Your task to perform on an android device: Do I have any events today? Image 0: 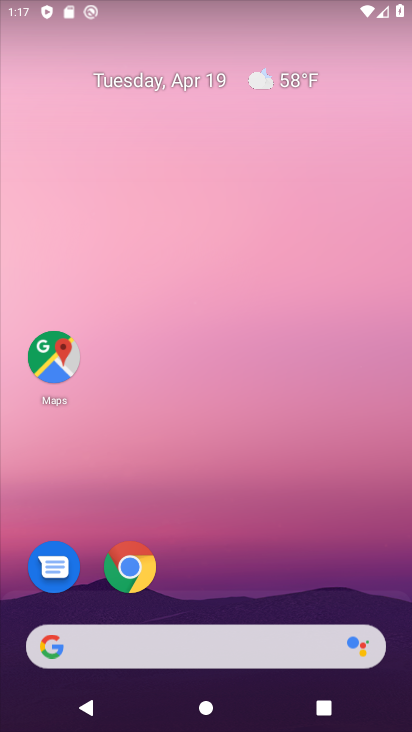
Step 0: drag from (270, 596) to (290, 59)
Your task to perform on an android device: Do I have any events today? Image 1: 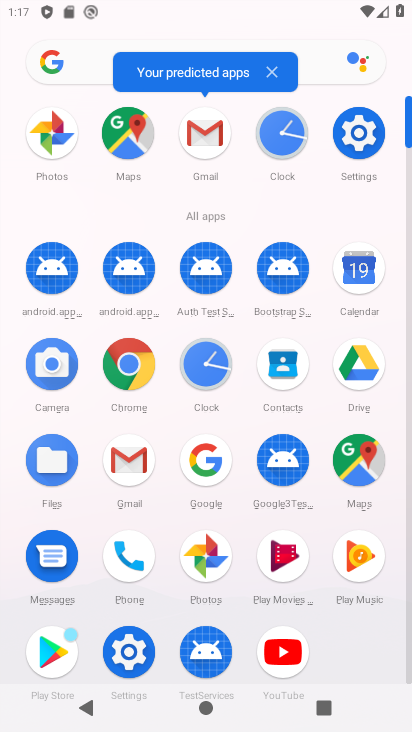
Step 1: click (357, 290)
Your task to perform on an android device: Do I have any events today? Image 2: 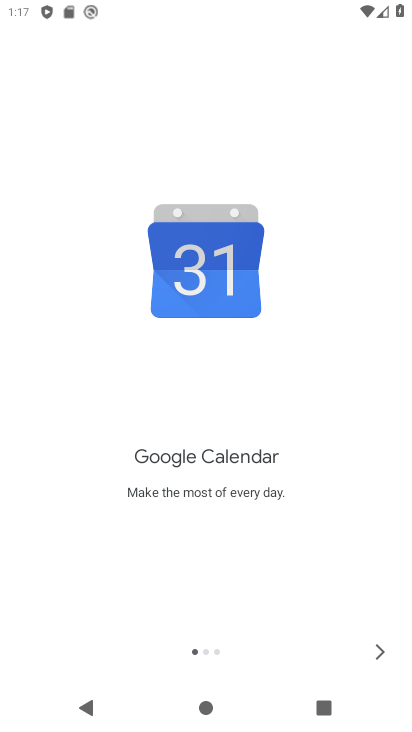
Step 2: click (374, 651)
Your task to perform on an android device: Do I have any events today? Image 3: 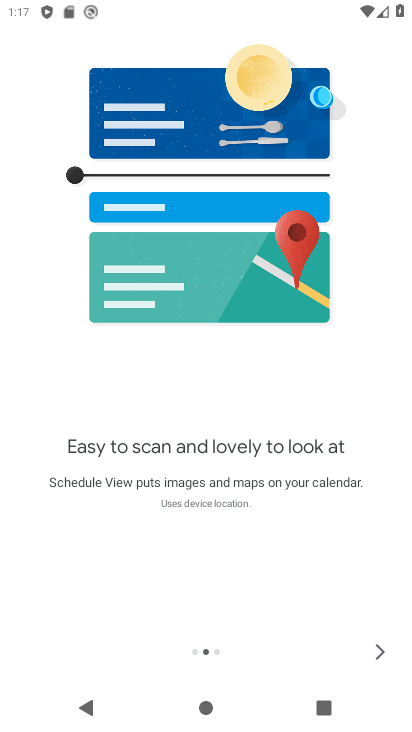
Step 3: click (374, 651)
Your task to perform on an android device: Do I have any events today? Image 4: 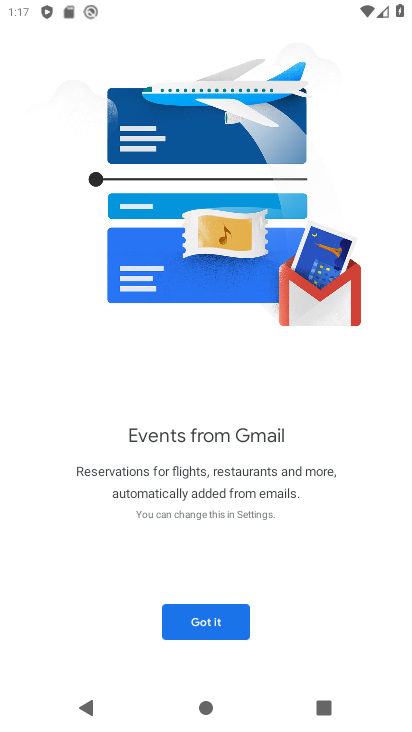
Step 4: click (198, 632)
Your task to perform on an android device: Do I have any events today? Image 5: 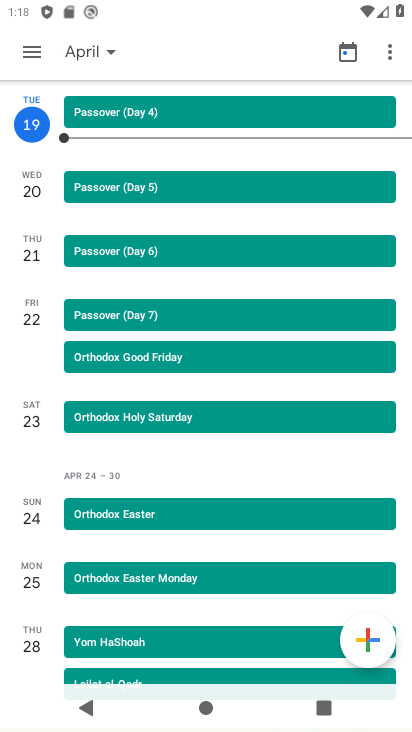
Step 5: click (107, 47)
Your task to perform on an android device: Do I have any events today? Image 6: 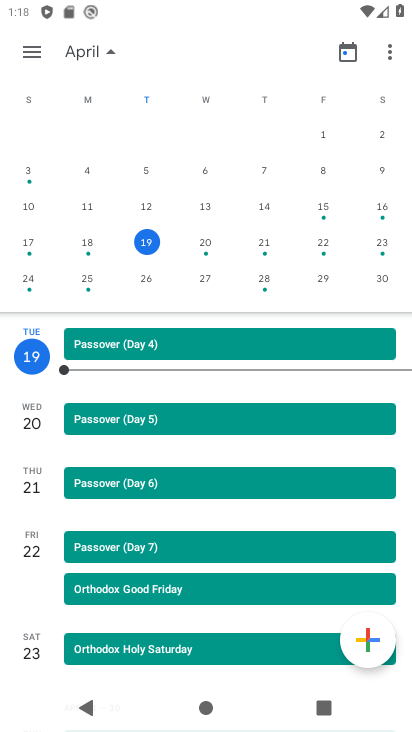
Step 6: click (153, 242)
Your task to perform on an android device: Do I have any events today? Image 7: 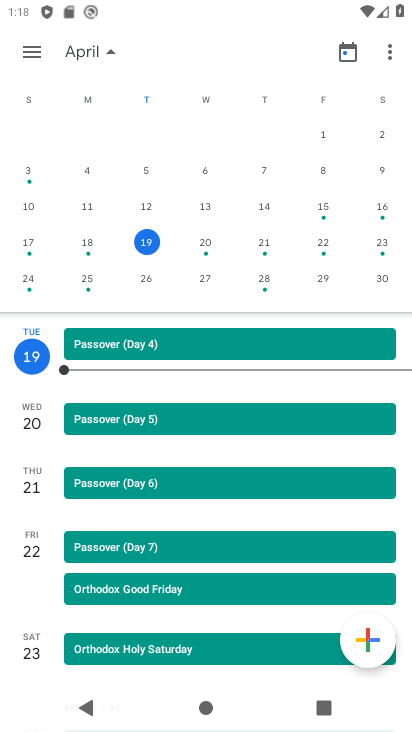
Step 7: click (148, 246)
Your task to perform on an android device: Do I have any events today? Image 8: 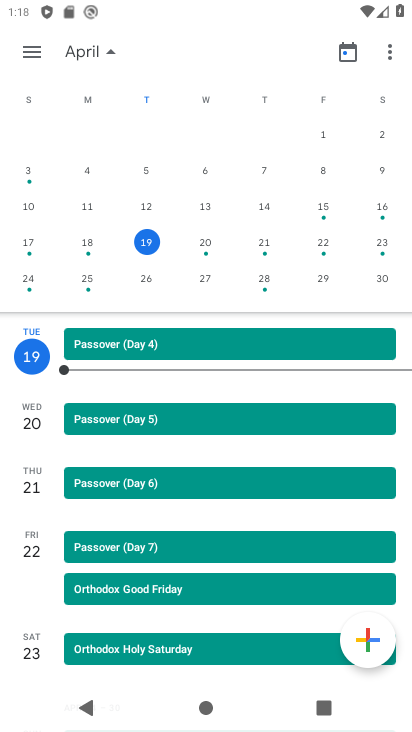
Step 8: click (62, 373)
Your task to perform on an android device: Do I have any events today? Image 9: 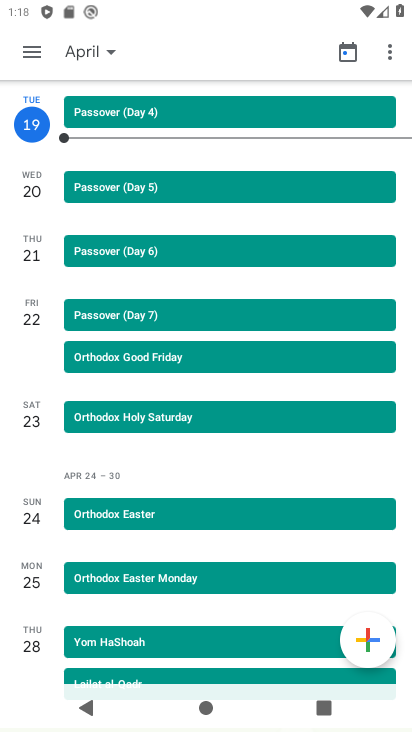
Step 9: task complete